Your task to perform on an android device: View the shopping cart on target. Add razer thresher to the cart on target, then select checkout. Image 0: 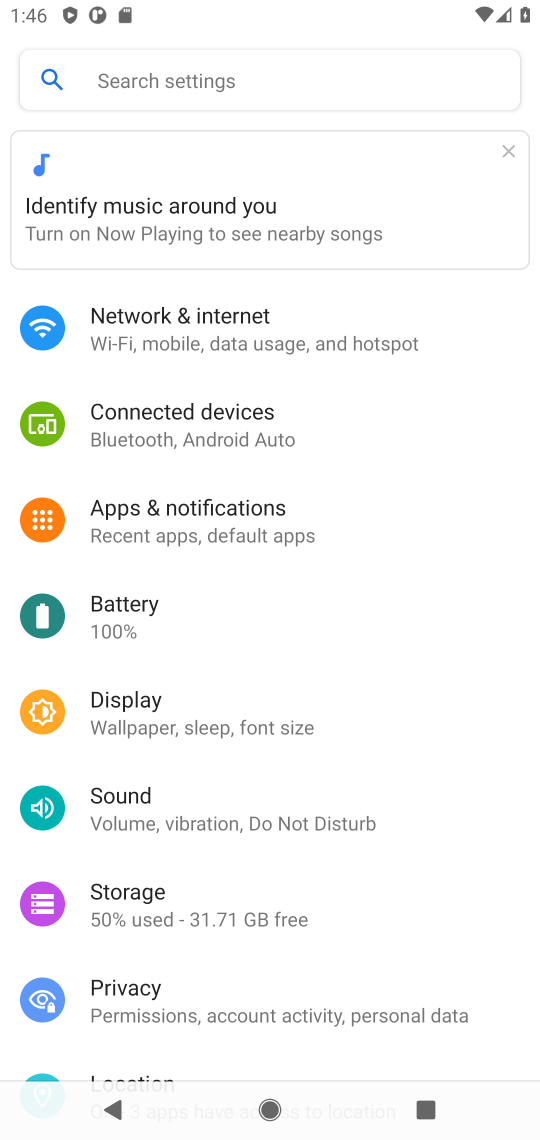
Step 0: press home button
Your task to perform on an android device: View the shopping cart on target. Add razer thresher to the cart on target, then select checkout. Image 1: 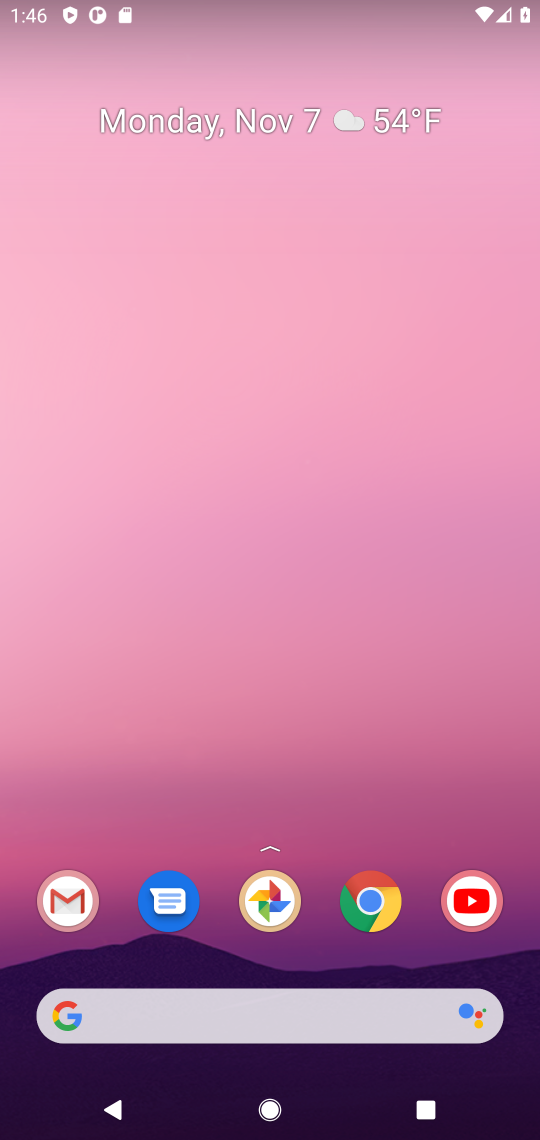
Step 1: click (375, 906)
Your task to perform on an android device: View the shopping cart on target. Add razer thresher to the cart on target, then select checkout. Image 2: 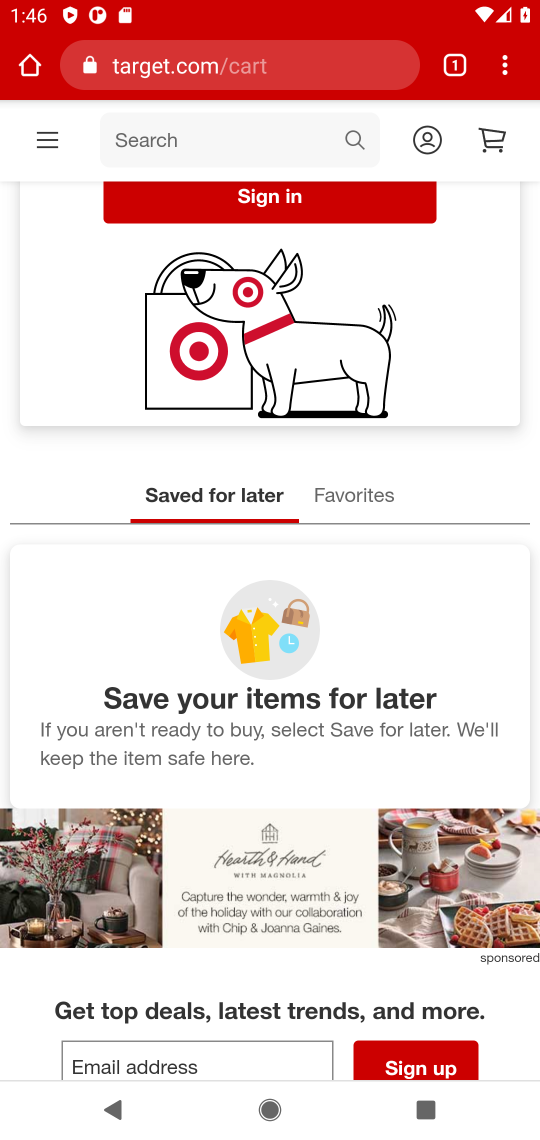
Step 2: click (496, 132)
Your task to perform on an android device: View the shopping cart on target. Add razer thresher to the cart on target, then select checkout. Image 3: 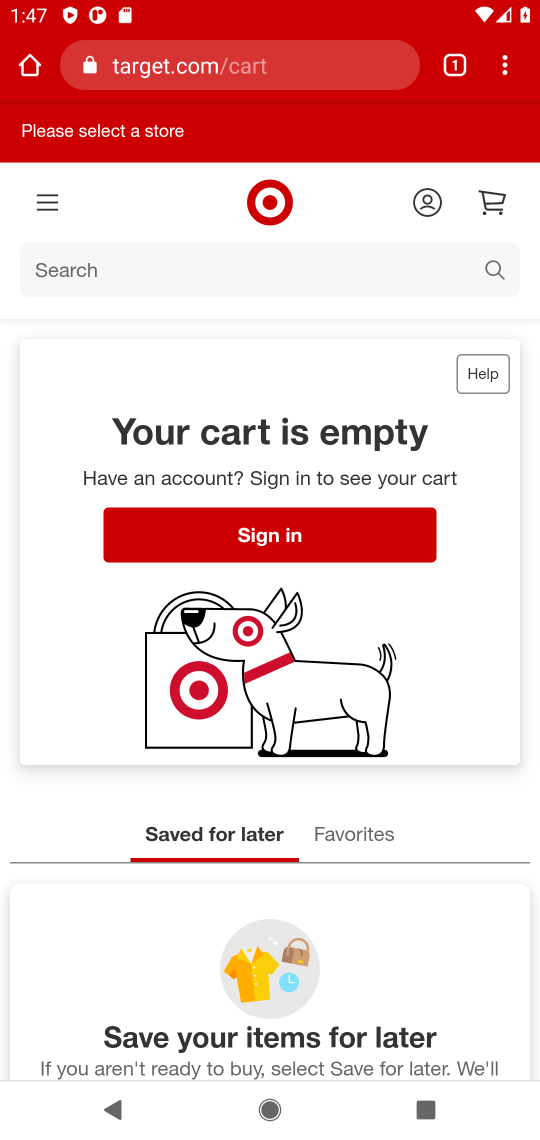
Step 3: click (496, 280)
Your task to perform on an android device: View the shopping cart on target. Add razer thresher to the cart on target, then select checkout. Image 4: 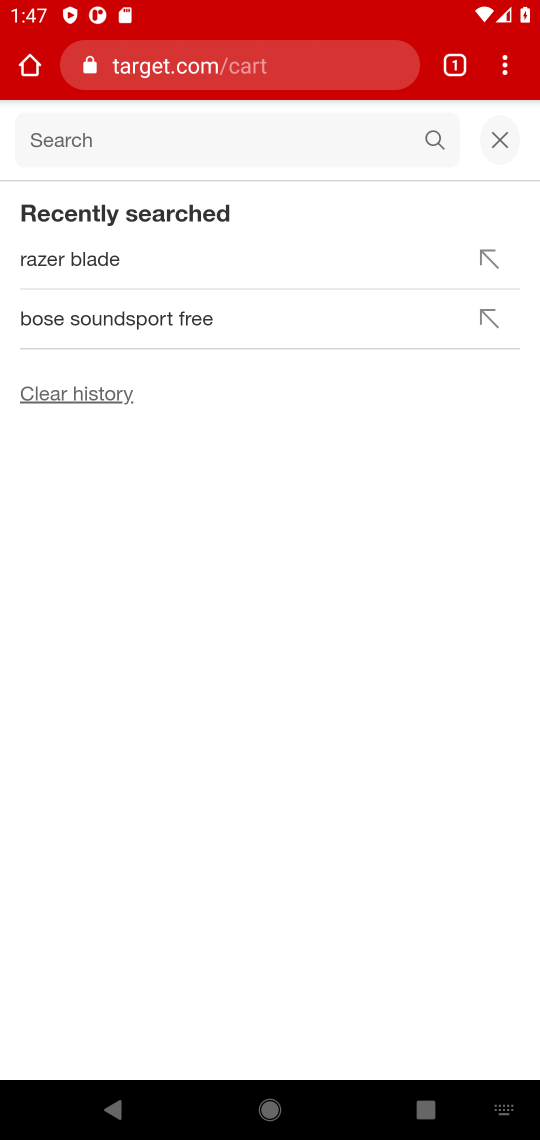
Step 4: click (50, 143)
Your task to perform on an android device: View the shopping cart on target. Add razer thresher to the cart on target, then select checkout. Image 5: 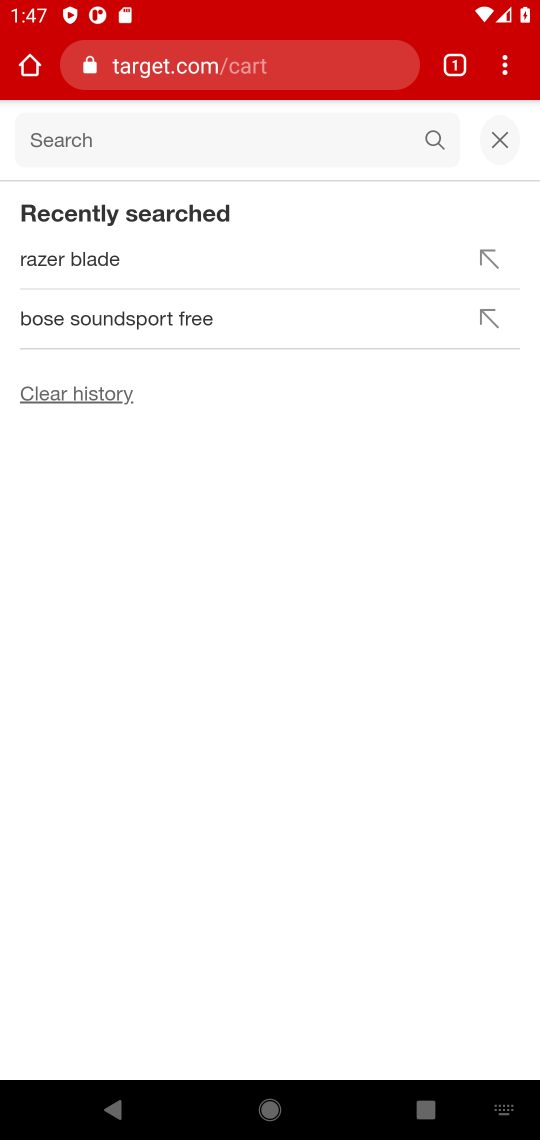
Step 5: type "razer thresher"
Your task to perform on an android device: View the shopping cart on target. Add razer thresher to the cart on target, then select checkout. Image 6: 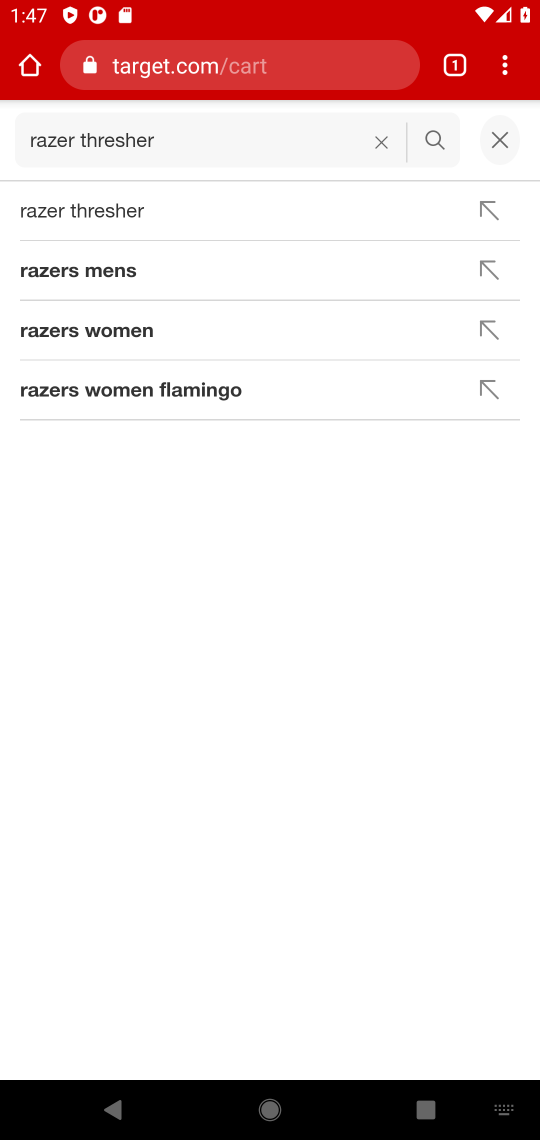
Step 6: click (90, 213)
Your task to perform on an android device: View the shopping cart on target. Add razer thresher to the cart on target, then select checkout. Image 7: 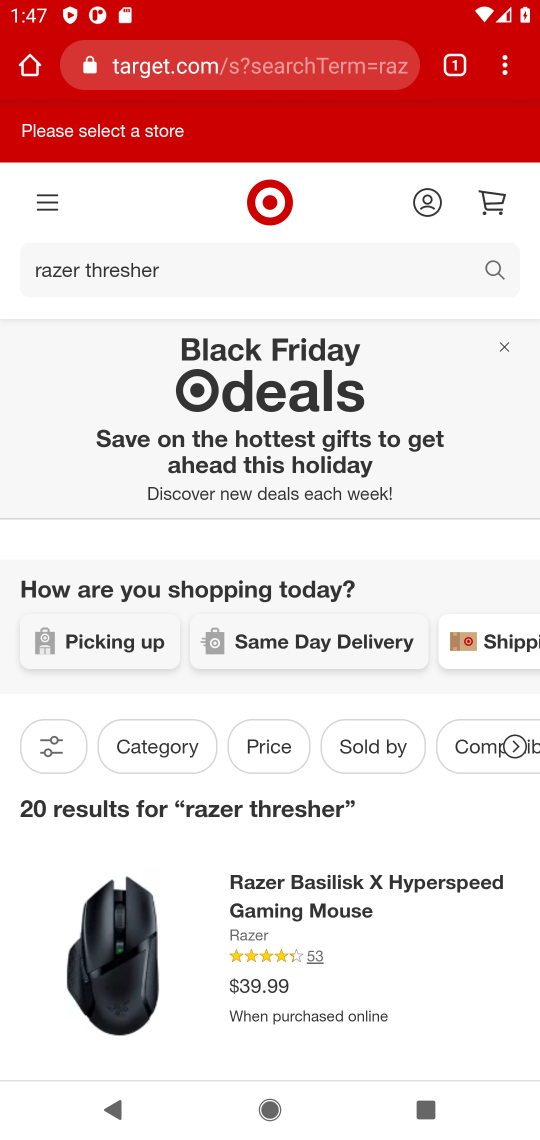
Step 7: drag from (245, 902) to (264, 576)
Your task to perform on an android device: View the shopping cart on target. Add razer thresher to the cart on target, then select checkout. Image 8: 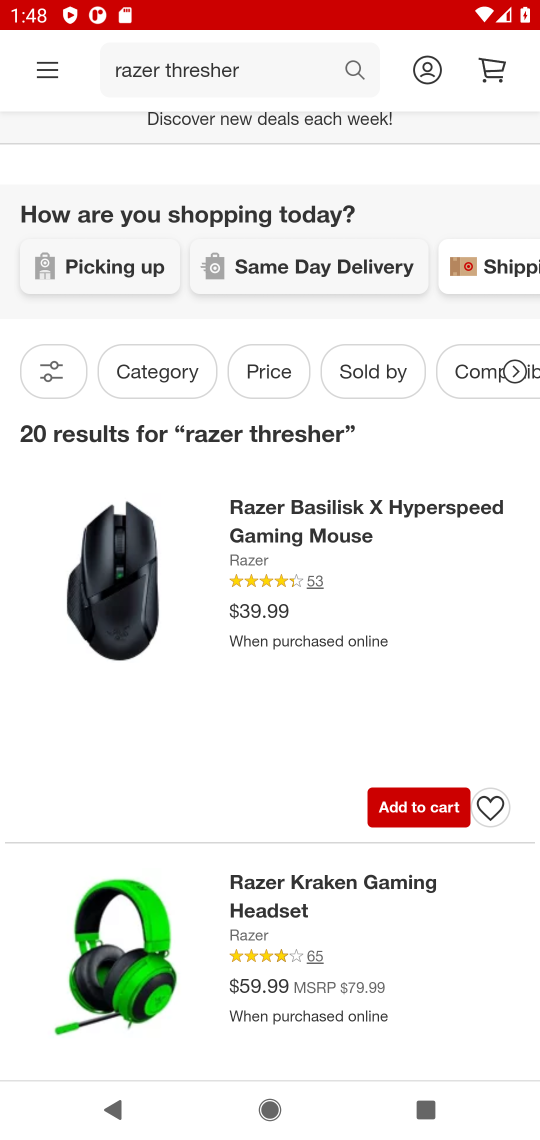
Step 8: drag from (361, 202) to (353, 816)
Your task to perform on an android device: View the shopping cart on target. Add razer thresher to the cart on target, then select checkout. Image 9: 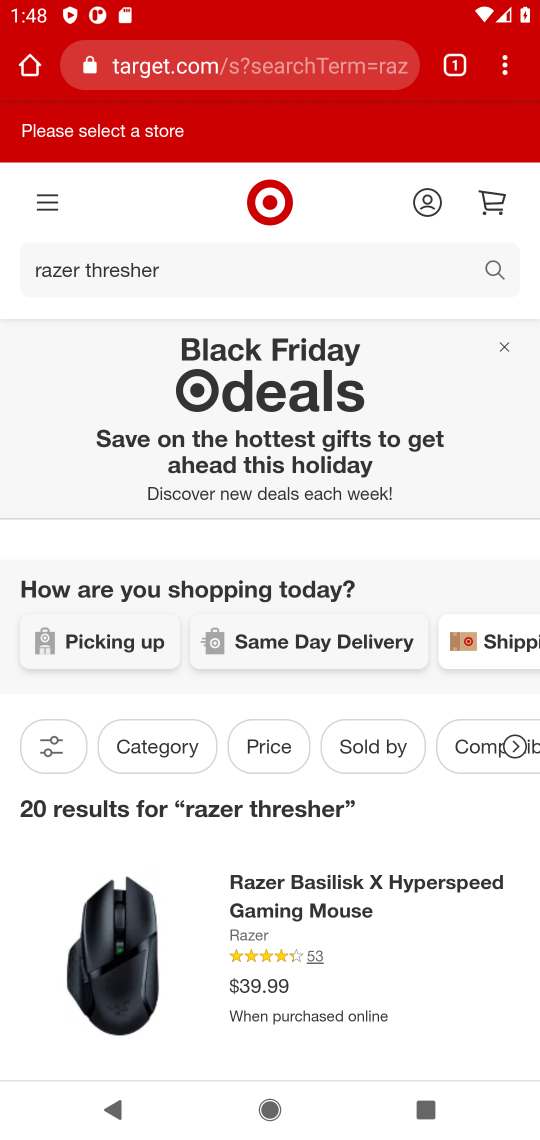
Step 9: click (490, 203)
Your task to perform on an android device: View the shopping cart on target. Add razer thresher to the cart on target, then select checkout. Image 10: 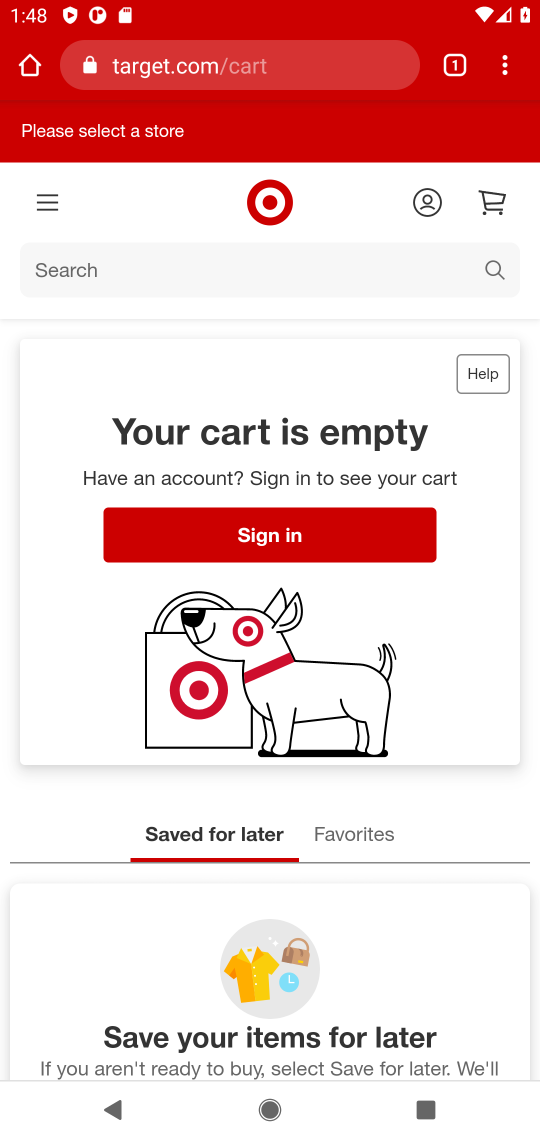
Step 10: click (494, 271)
Your task to perform on an android device: View the shopping cart on target. Add razer thresher to the cart on target, then select checkout. Image 11: 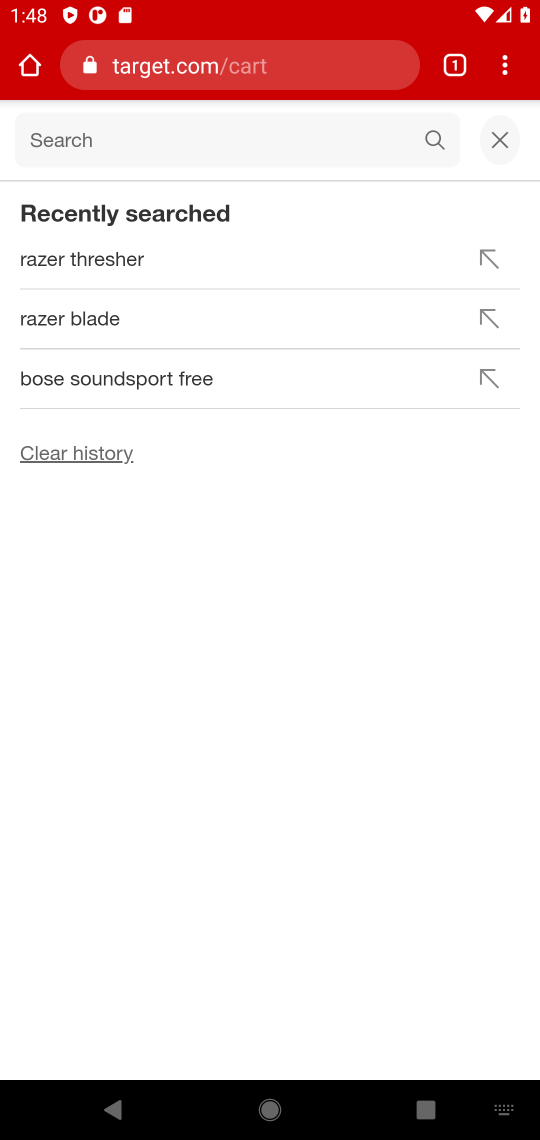
Step 11: click (121, 130)
Your task to perform on an android device: View the shopping cart on target. Add razer thresher to the cart on target, then select checkout. Image 12: 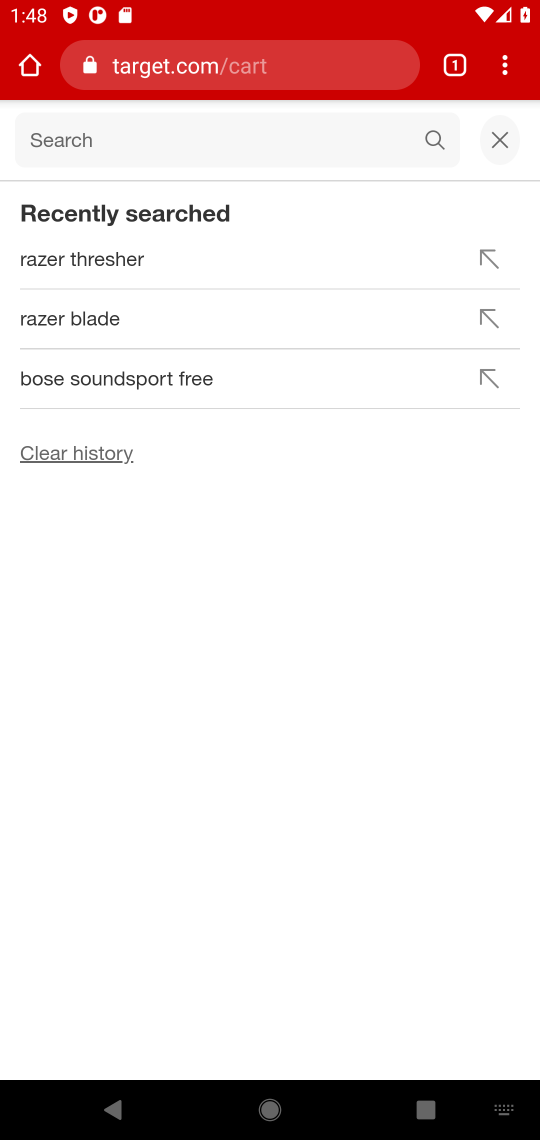
Step 12: type "razer thresher"
Your task to perform on an android device: View the shopping cart on target. Add razer thresher to the cart on target, then select checkout. Image 13: 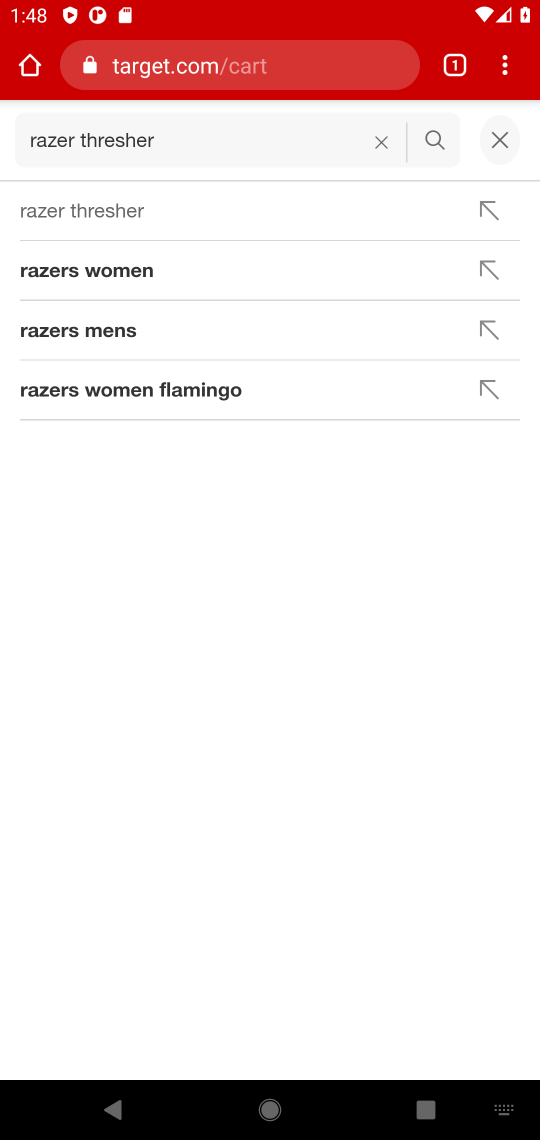
Step 13: click (119, 220)
Your task to perform on an android device: View the shopping cart on target. Add razer thresher to the cart on target, then select checkout. Image 14: 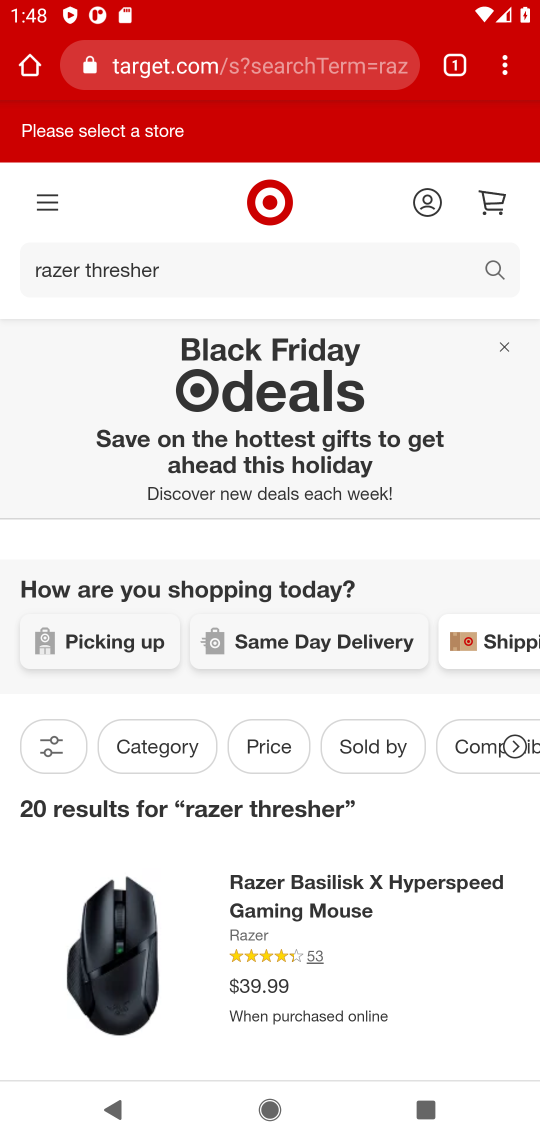
Step 14: task complete